Your task to perform on an android device: open app "DuckDuckGo Privacy Browser" (install if not already installed) and go to login screen Image 0: 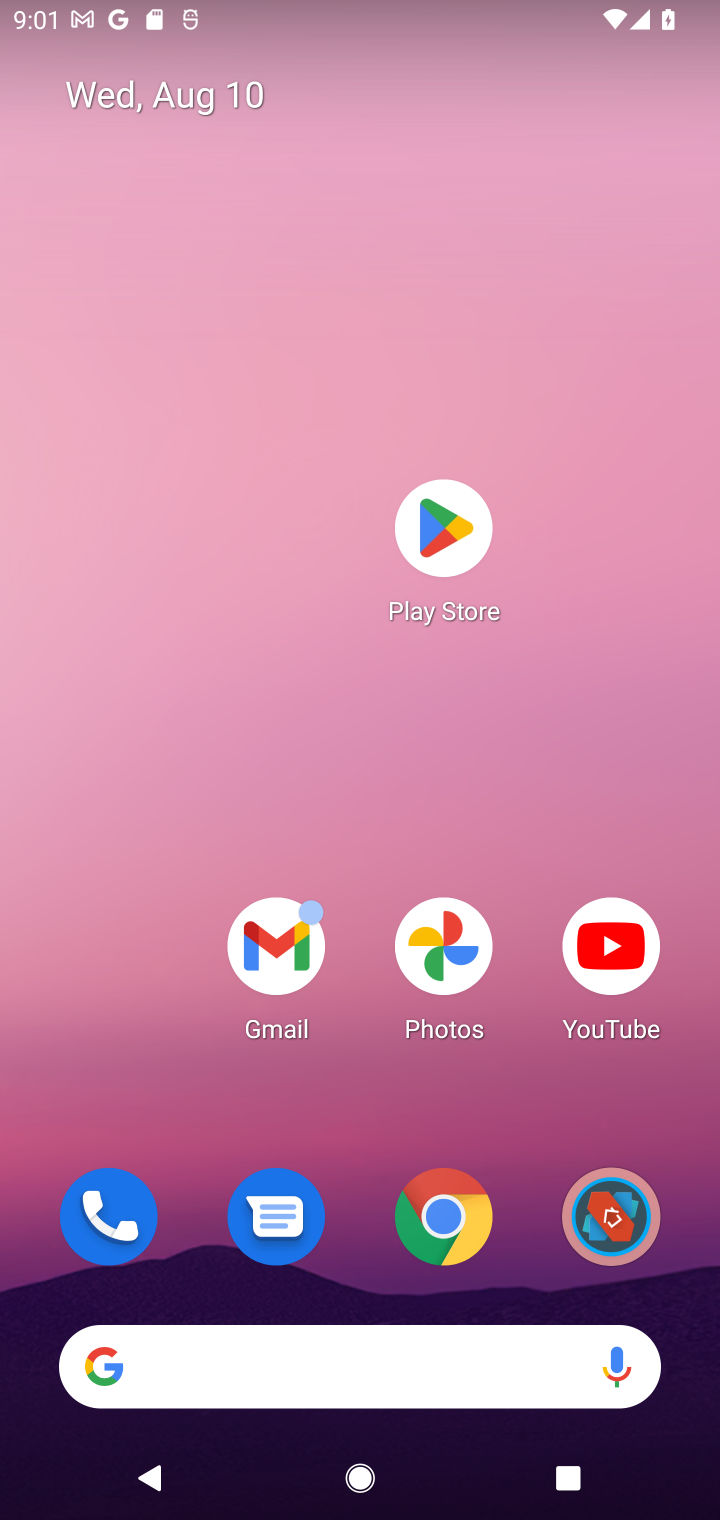
Step 0: press home button
Your task to perform on an android device: open app "DuckDuckGo Privacy Browser" (install if not already installed) and go to login screen Image 1: 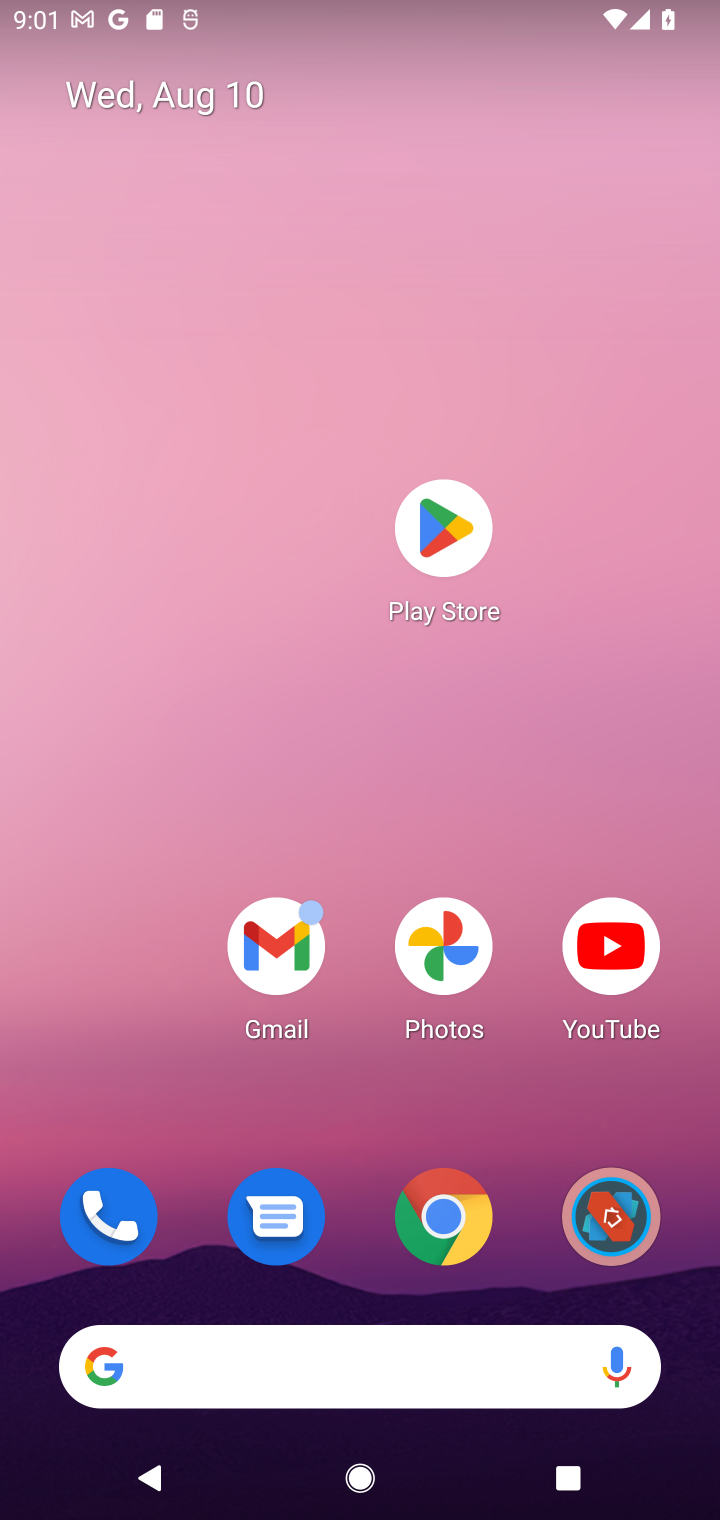
Step 1: click (439, 537)
Your task to perform on an android device: open app "DuckDuckGo Privacy Browser" (install if not already installed) and go to login screen Image 2: 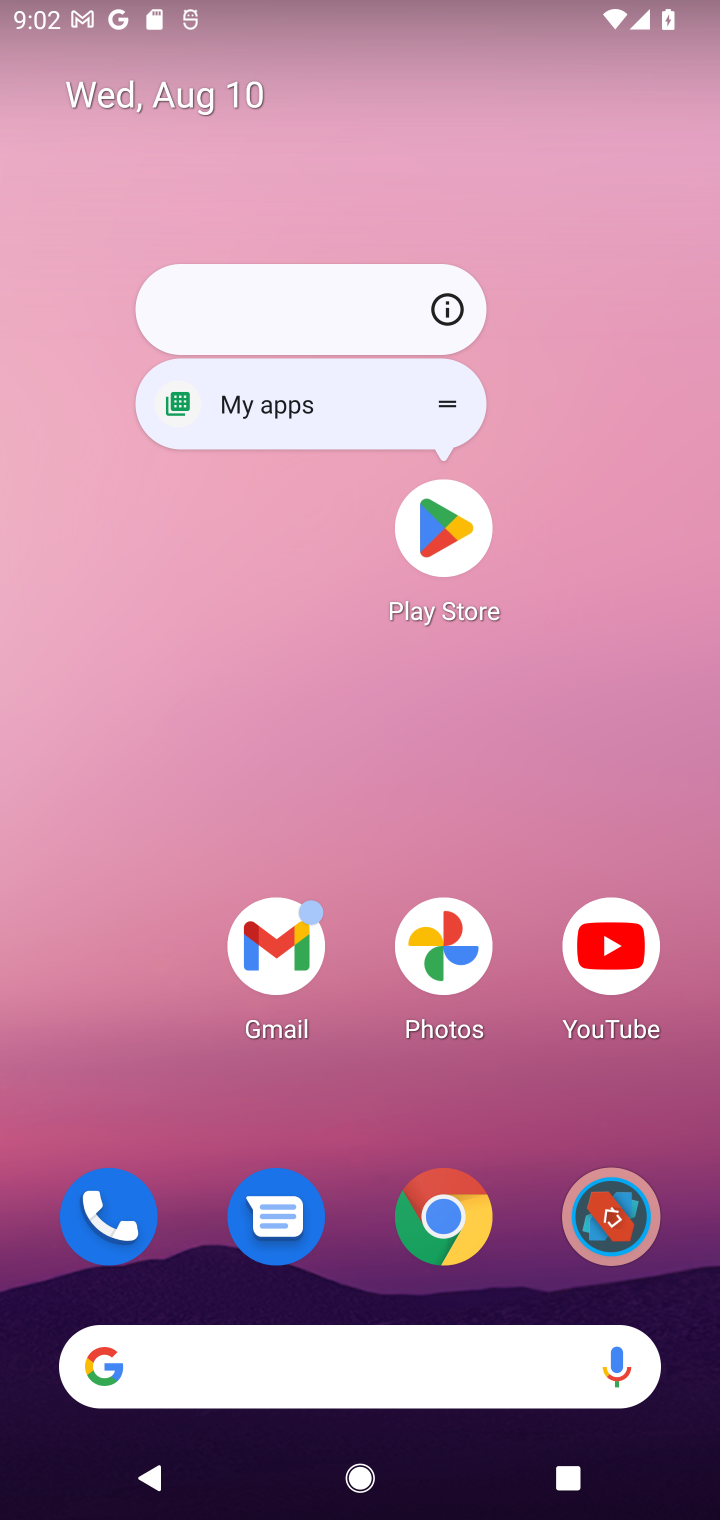
Step 2: click (439, 535)
Your task to perform on an android device: open app "DuckDuckGo Privacy Browser" (install if not already installed) and go to login screen Image 3: 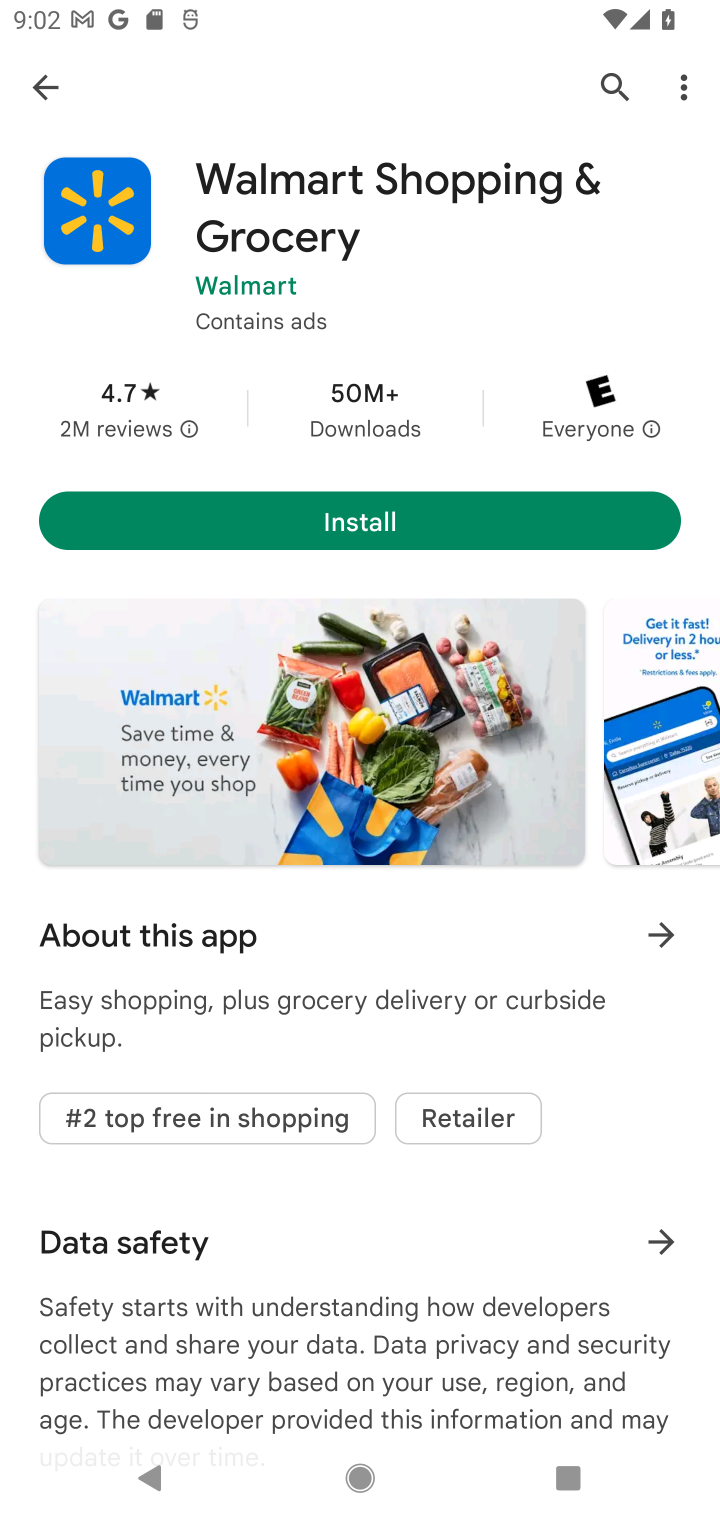
Step 3: click (607, 77)
Your task to perform on an android device: open app "DuckDuckGo Privacy Browser" (install if not already installed) and go to login screen Image 4: 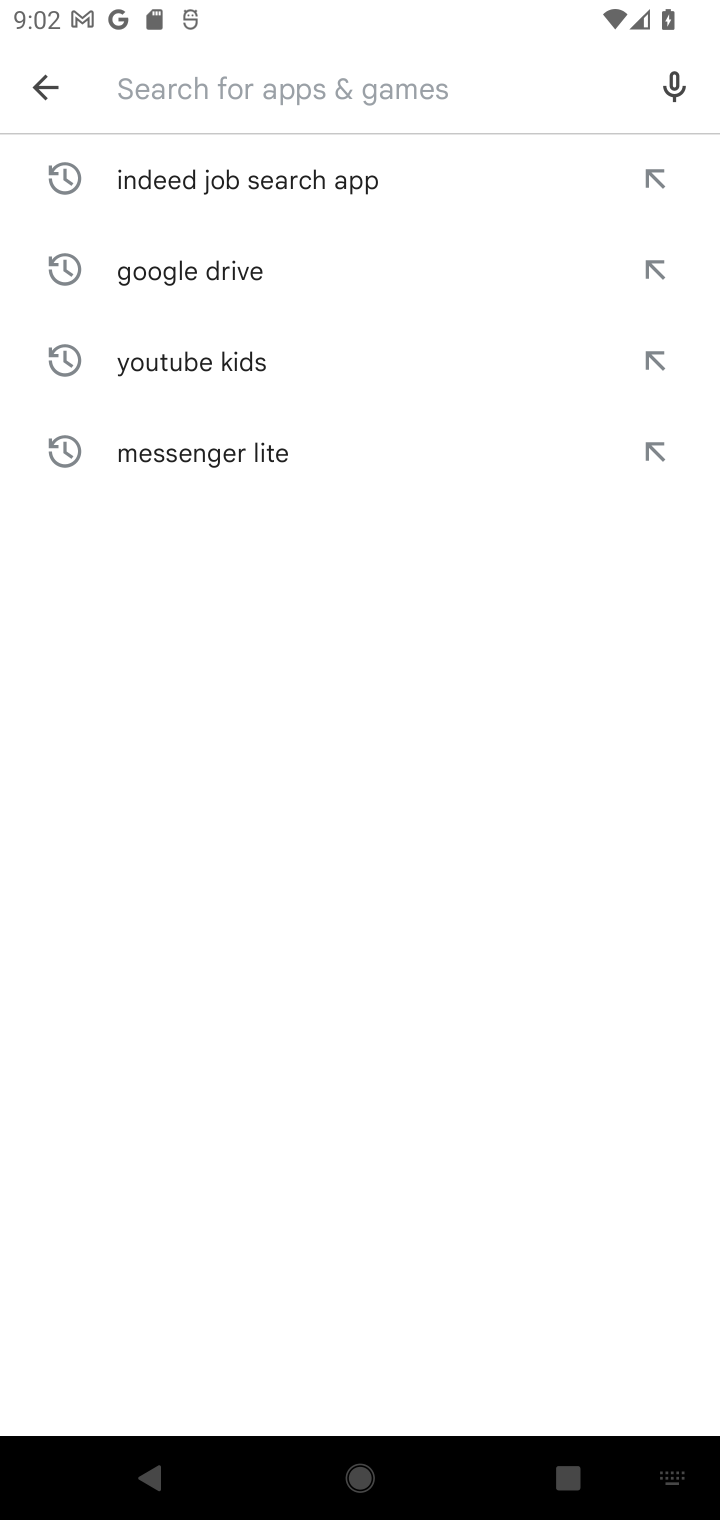
Step 4: type "DuckDuckGo Privacy Browser"
Your task to perform on an android device: open app "DuckDuckGo Privacy Browser" (install if not already installed) and go to login screen Image 5: 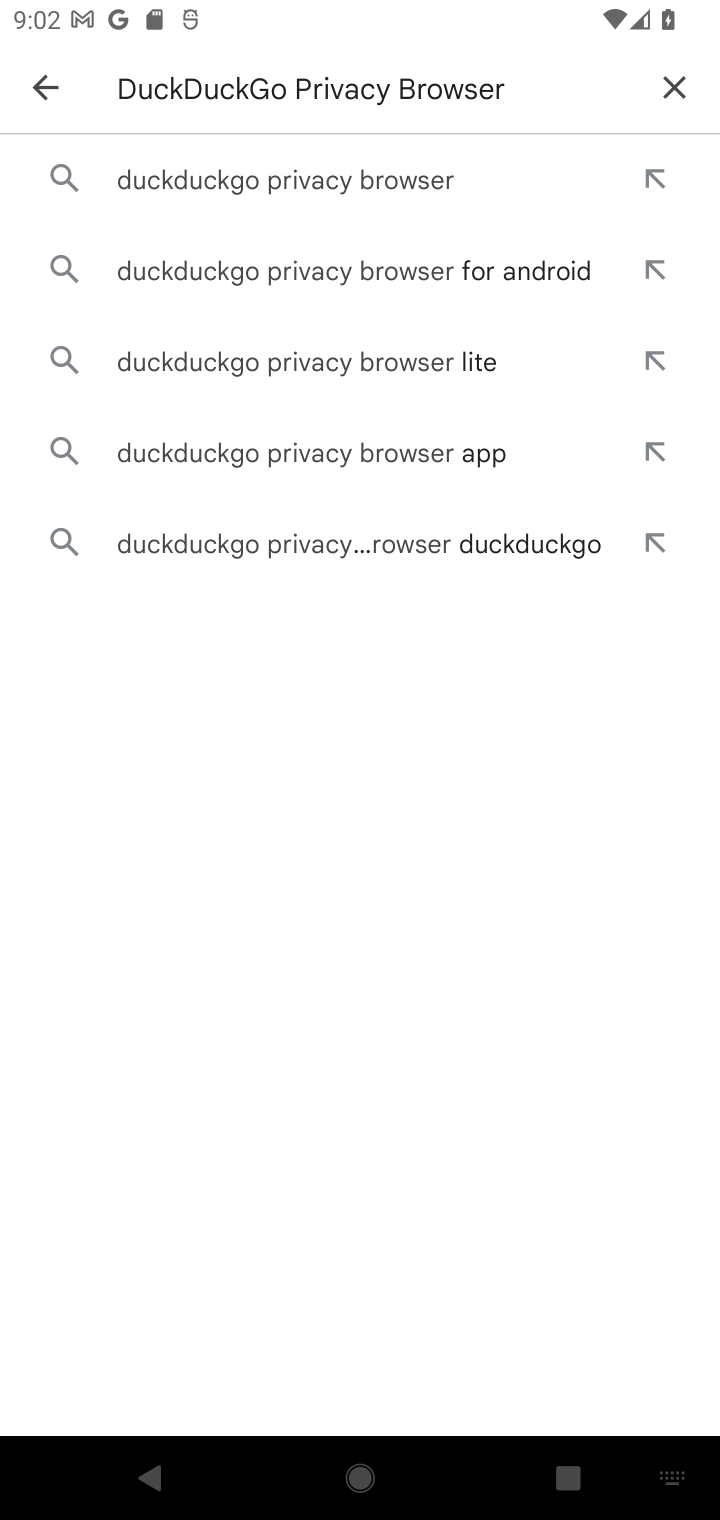
Step 5: click (363, 175)
Your task to perform on an android device: open app "DuckDuckGo Privacy Browser" (install if not already installed) and go to login screen Image 6: 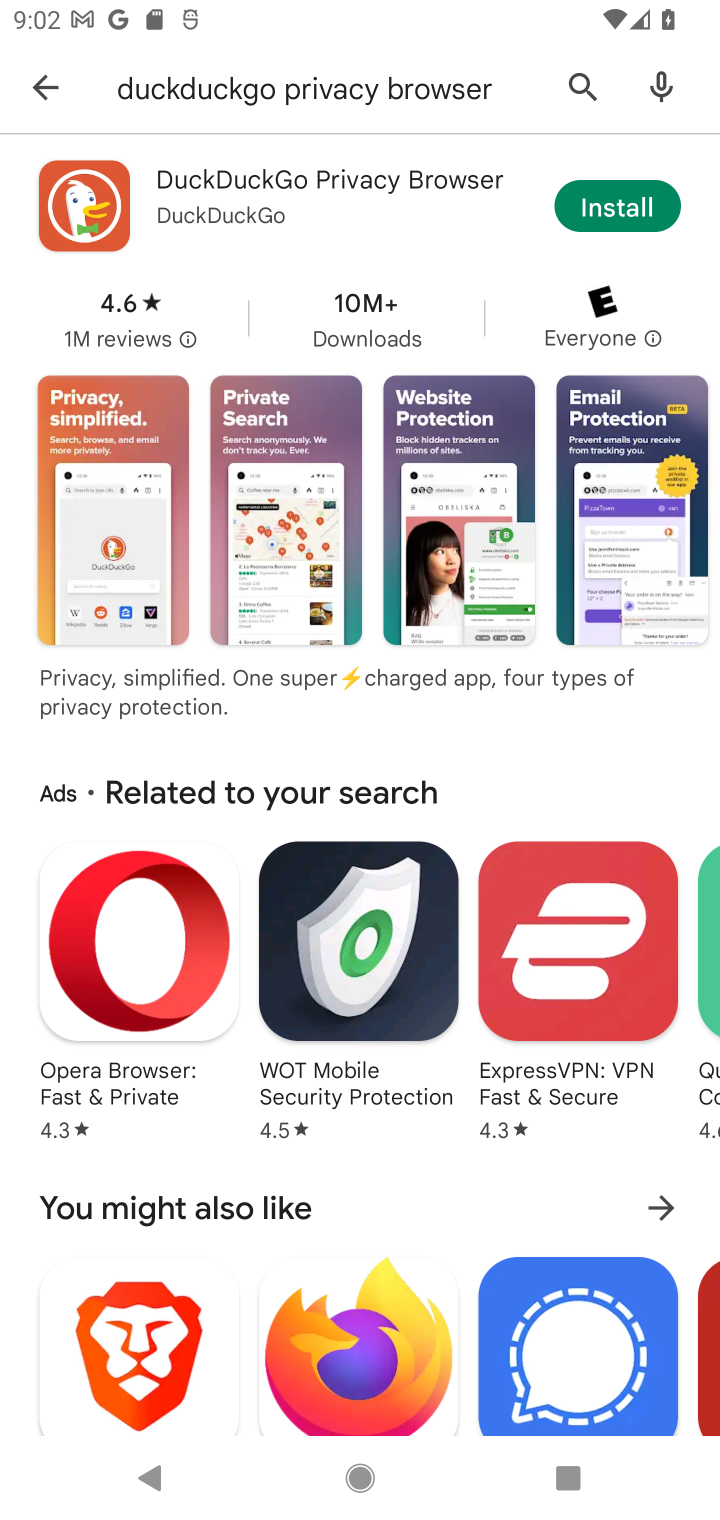
Step 6: click (604, 208)
Your task to perform on an android device: open app "DuckDuckGo Privacy Browser" (install if not already installed) and go to login screen Image 7: 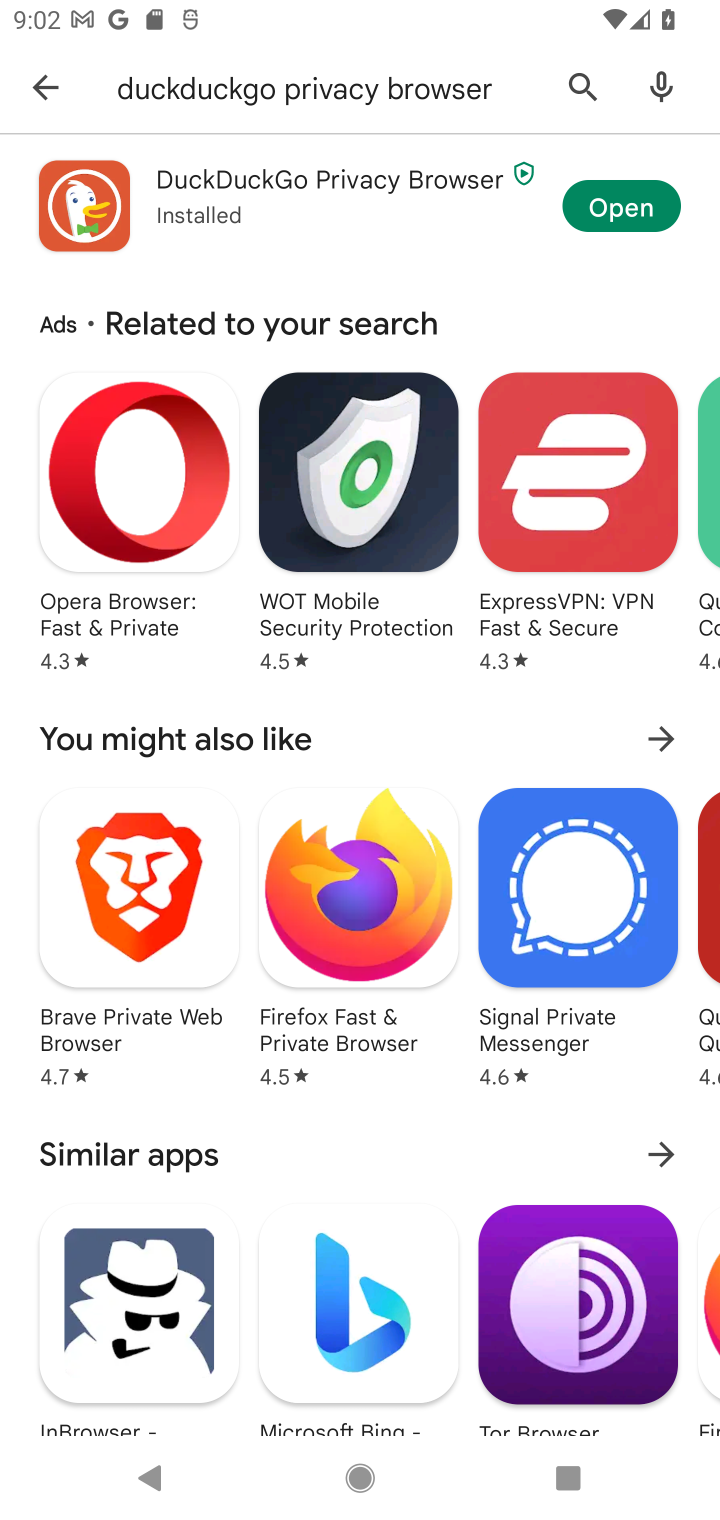
Step 7: click (624, 214)
Your task to perform on an android device: open app "DuckDuckGo Privacy Browser" (install if not already installed) and go to login screen Image 8: 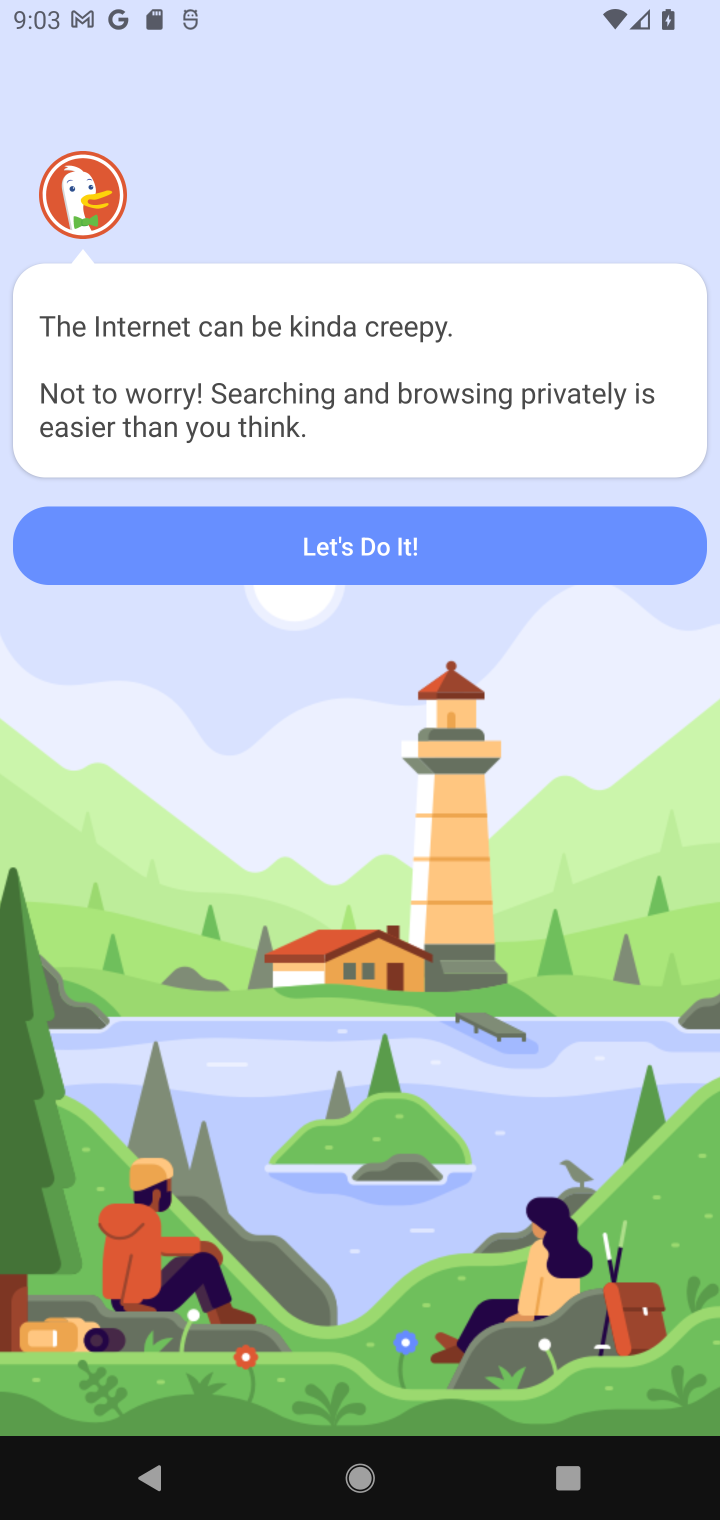
Step 8: task complete